Your task to perform on an android device: turn on data saver in the chrome app Image 0: 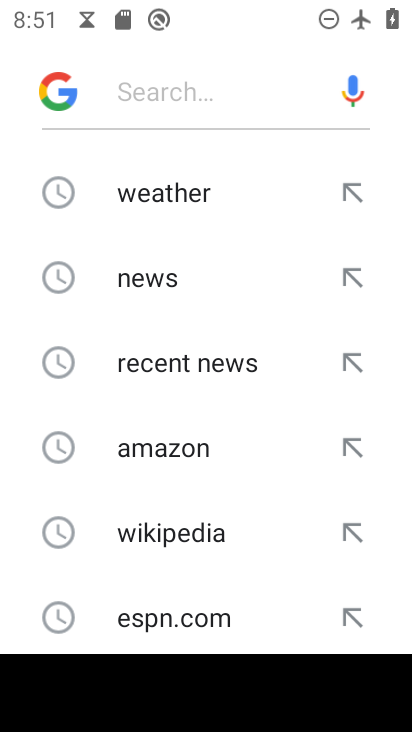
Step 0: press home button
Your task to perform on an android device: turn on data saver in the chrome app Image 1: 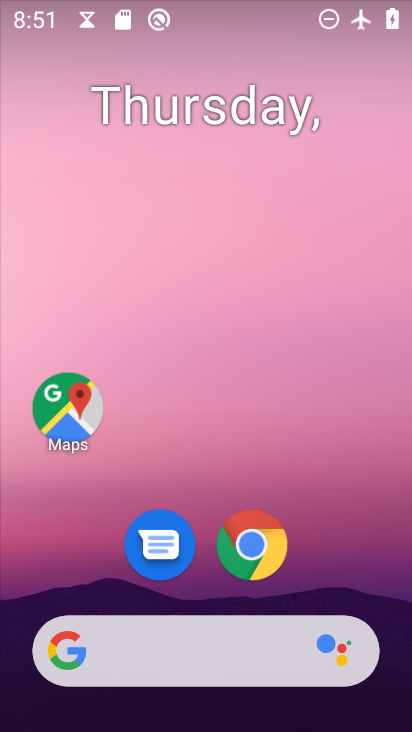
Step 1: click (248, 546)
Your task to perform on an android device: turn on data saver in the chrome app Image 2: 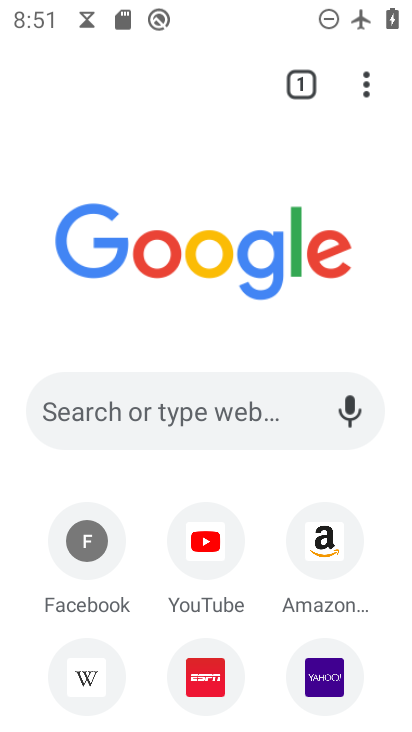
Step 2: click (368, 87)
Your task to perform on an android device: turn on data saver in the chrome app Image 3: 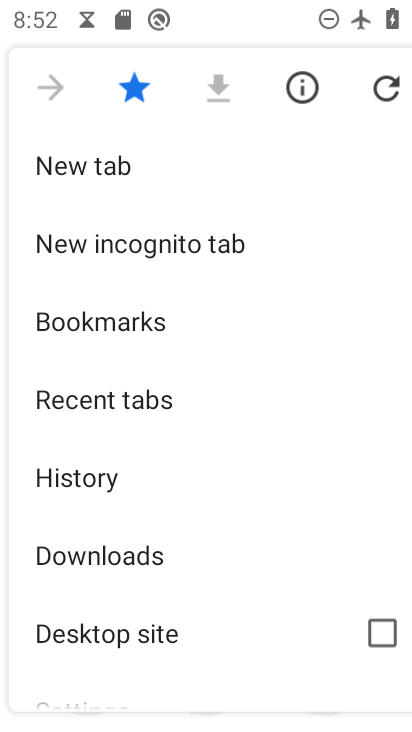
Step 3: drag from (97, 508) to (147, 425)
Your task to perform on an android device: turn on data saver in the chrome app Image 4: 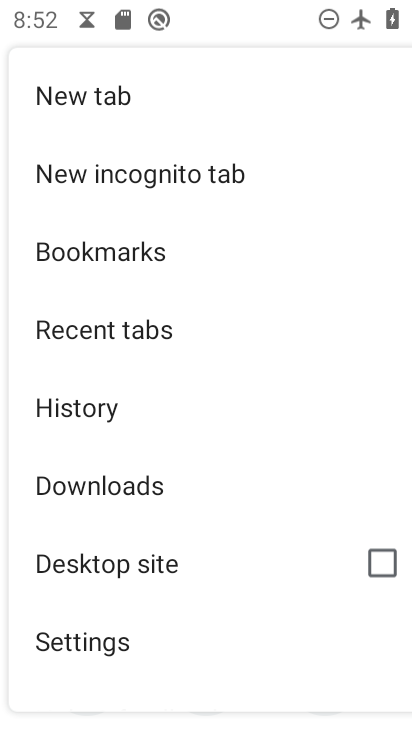
Step 4: drag from (92, 523) to (187, 416)
Your task to perform on an android device: turn on data saver in the chrome app Image 5: 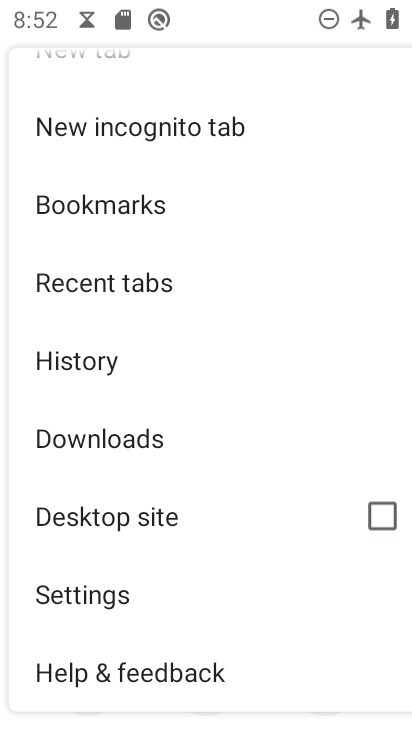
Step 5: click (87, 596)
Your task to perform on an android device: turn on data saver in the chrome app Image 6: 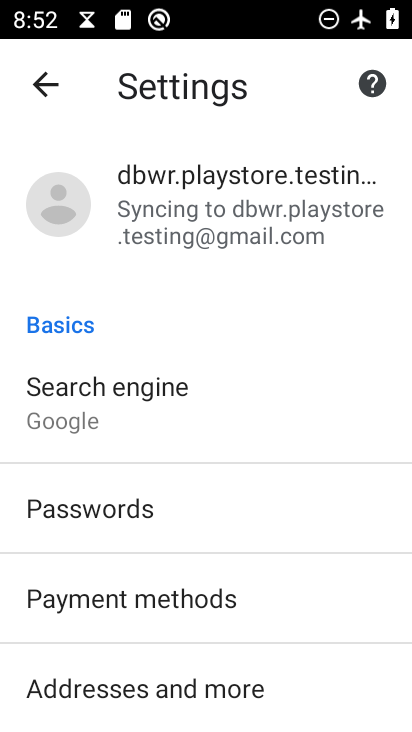
Step 6: drag from (155, 511) to (204, 400)
Your task to perform on an android device: turn on data saver in the chrome app Image 7: 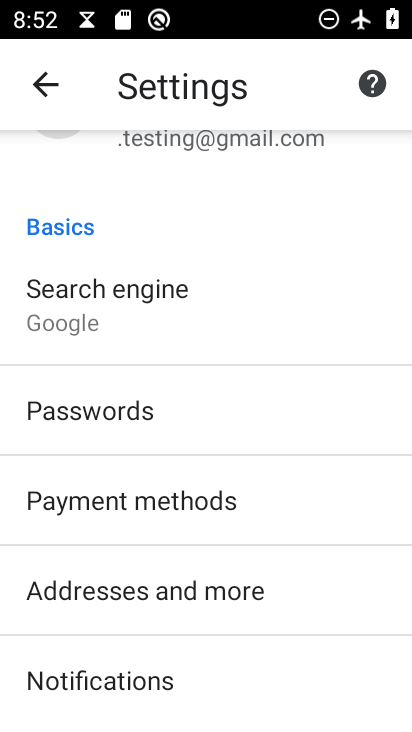
Step 7: drag from (129, 555) to (211, 463)
Your task to perform on an android device: turn on data saver in the chrome app Image 8: 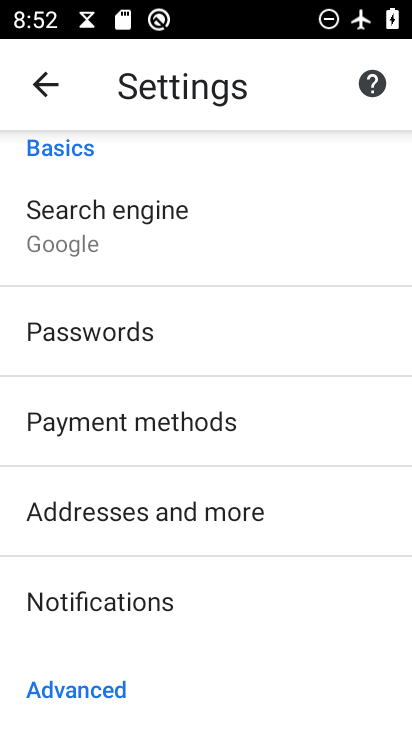
Step 8: drag from (118, 568) to (213, 469)
Your task to perform on an android device: turn on data saver in the chrome app Image 9: 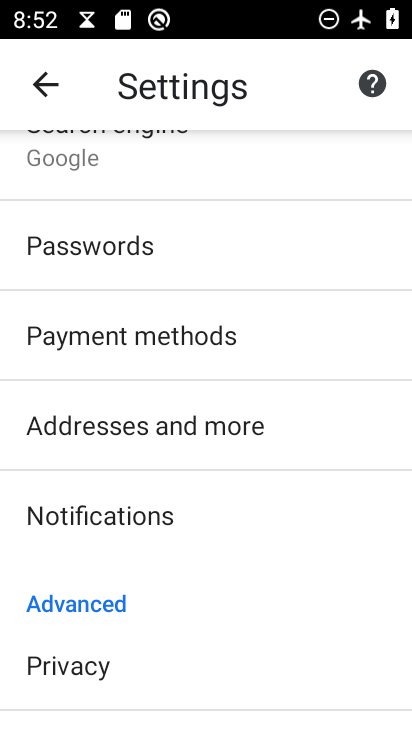
Step 9: drag from (101, 552) to (216, 435)
Your task to perform on an android device: turn on data saver in the chrome app Image 10: 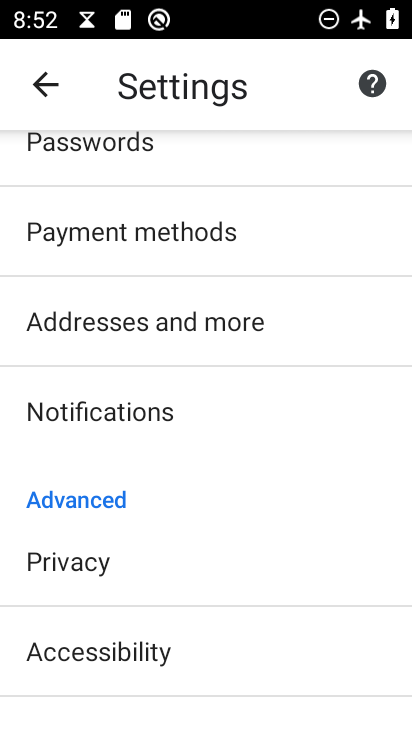
Step 10: drag from (134, 563) to (201, 490)
Your task to perform on an android device: turn on data saver in the chrome app Image 11: 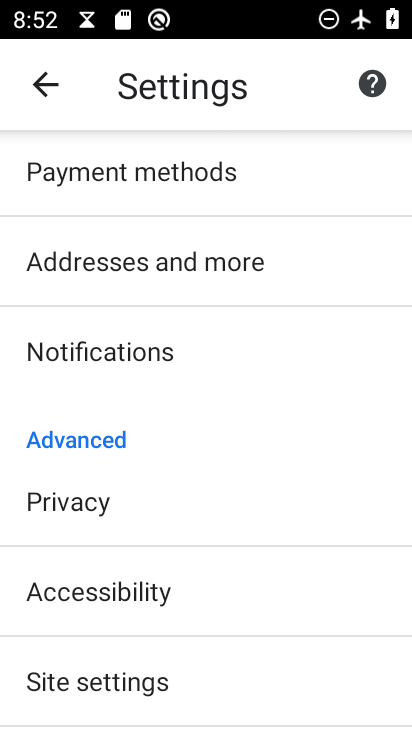
Step 11: drag from (93, 592) to (190, 493)
Your task to perform on an android device: turn on data saver in the chrome app Image 12: 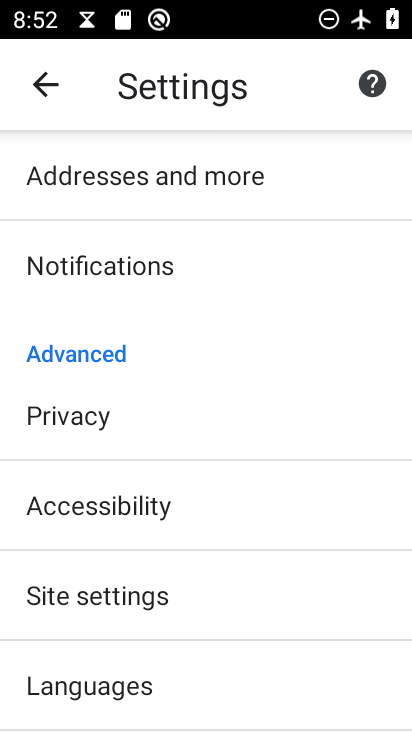
Step 12: drag from (98, 598) to (197, 490)
Your task to perform on an android device: turn on data saver in the chrome app Image 13: 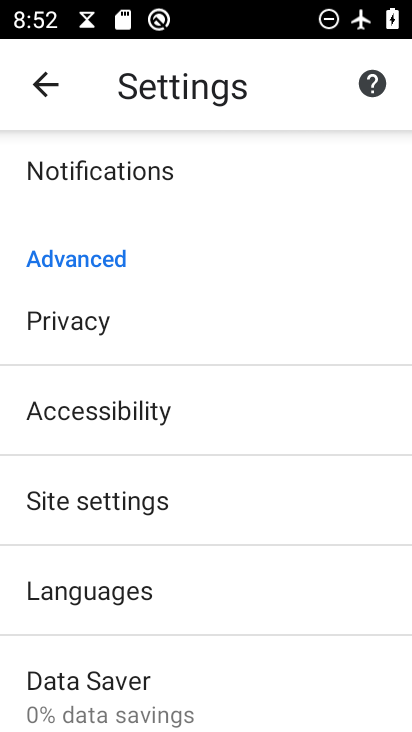
Step 13: drag from (141, 548) to (223, 447)
Your task to perform on an android device: turn on data saver in the chrome app Image 14: 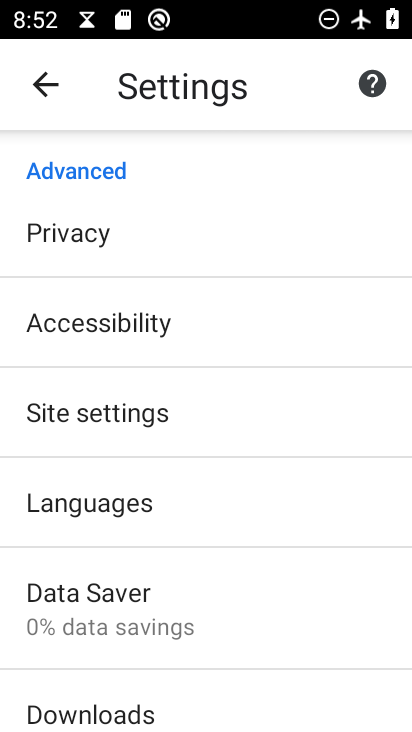
Step 14: click (138, 610)
Your task to perform on an android device: turn on data saver in the chrome app Image 15: 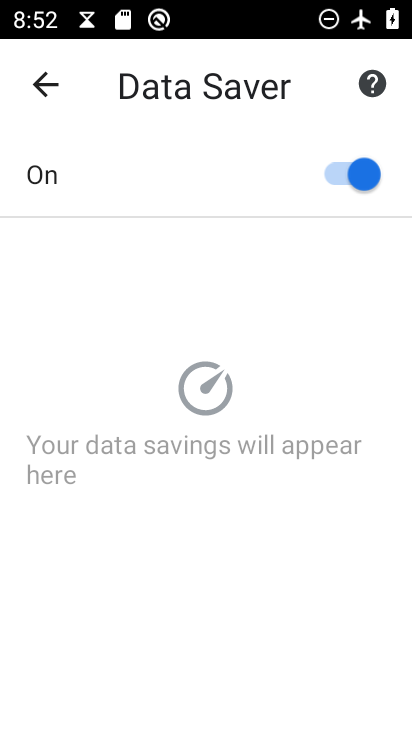
Step 15: task complete